Your task to perform on an android device: change notifications settings Image 0: 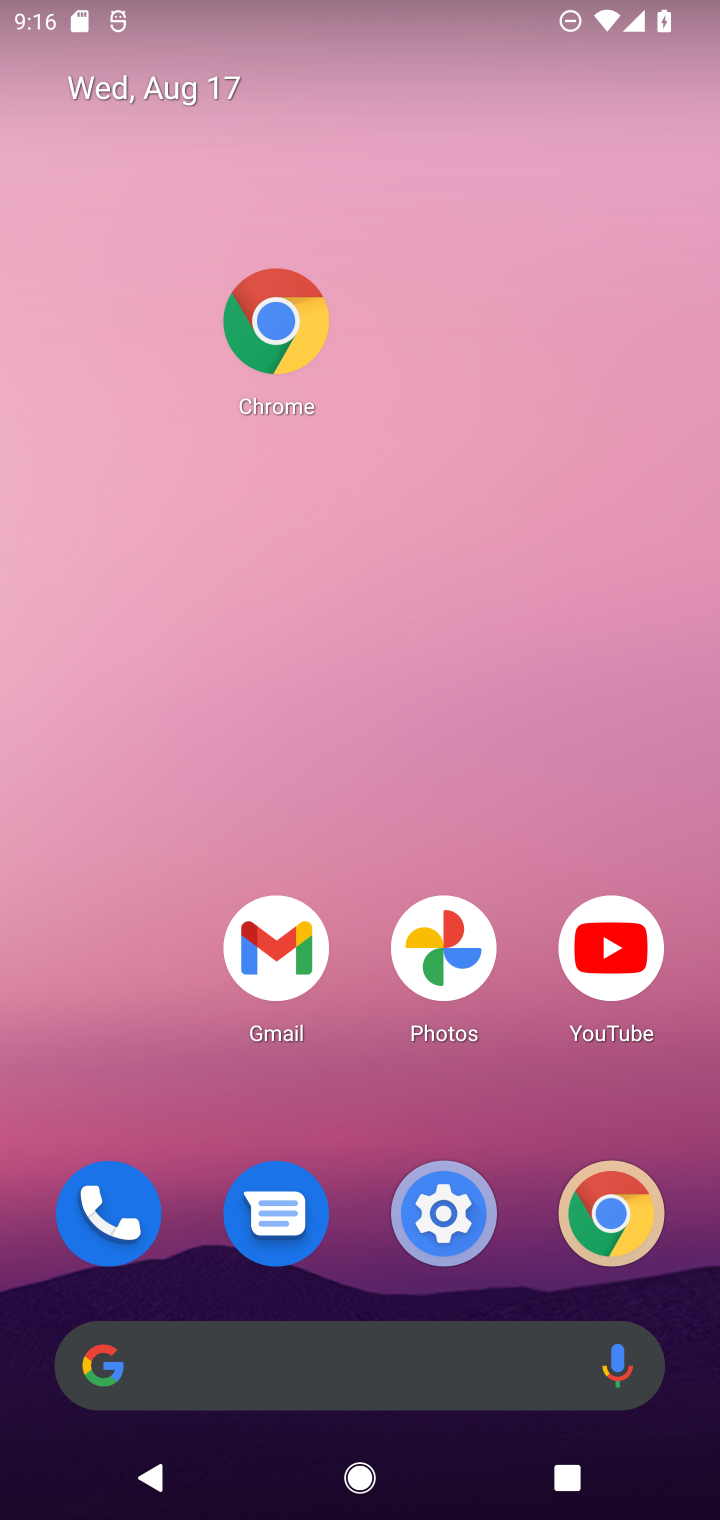
Step 0: click (431, 1247)
Your task to perform on an android device: change notifications settings Image 1: 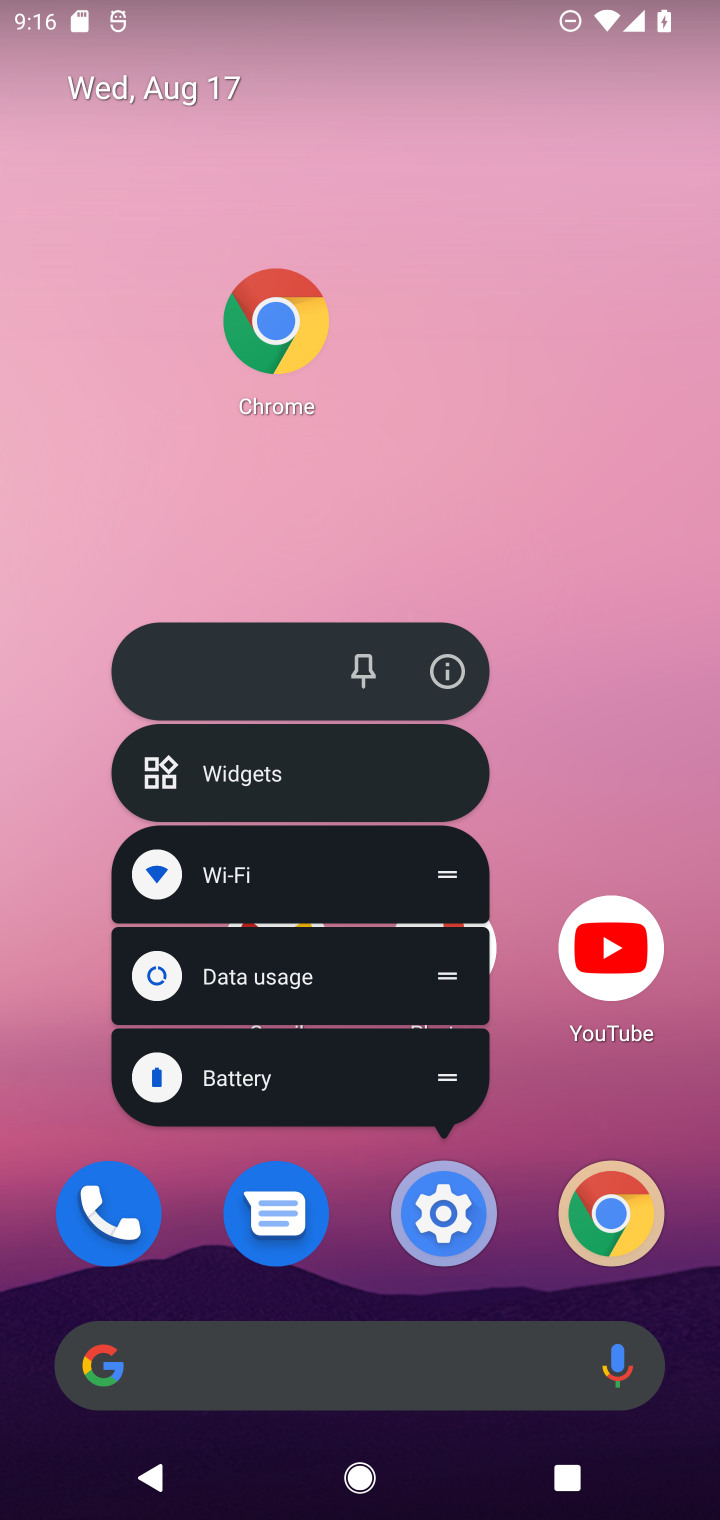
Step 1: click (431, 1247)
Your task to perform on an android device: change notifications settings Image 2: 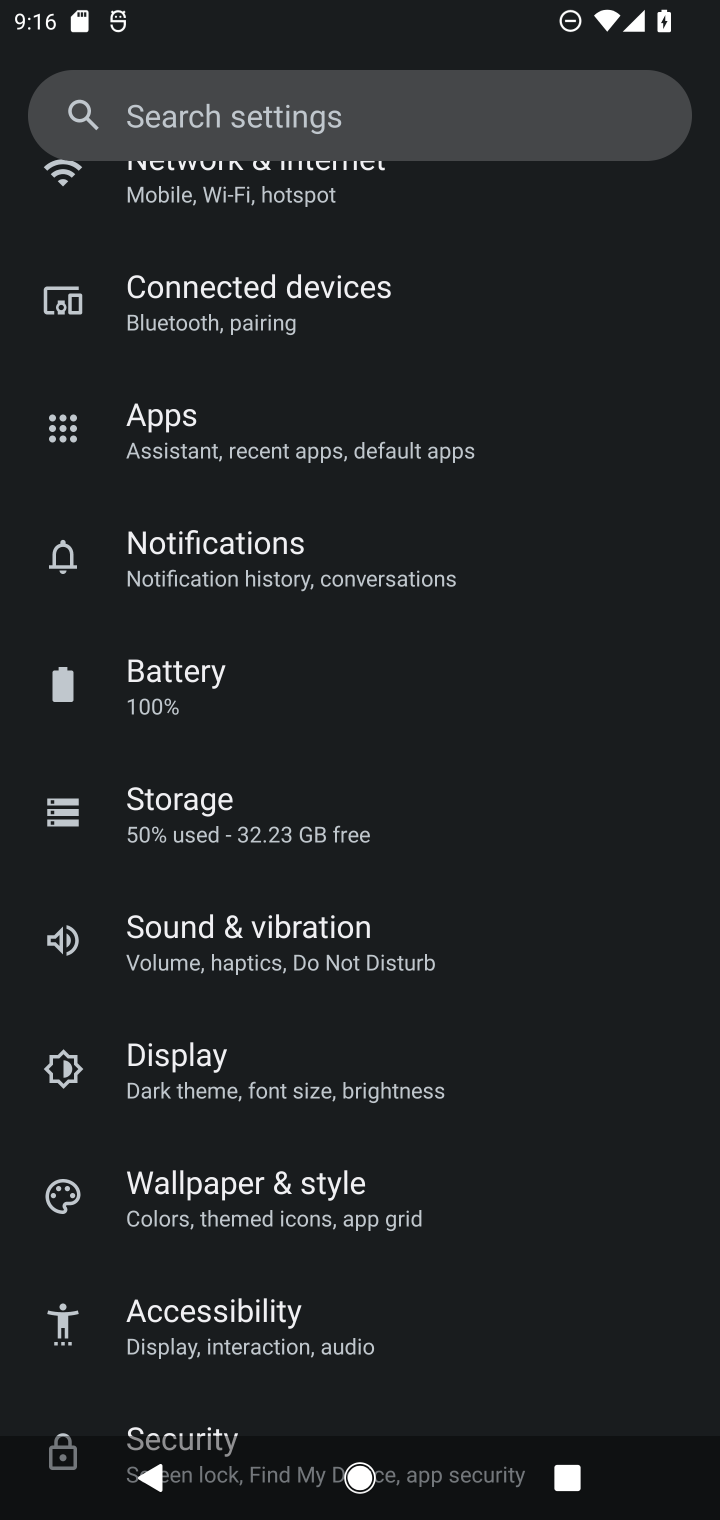
Step 2: click (252, 552)
Your task to perform on an android device: change notifications settings Image 3: 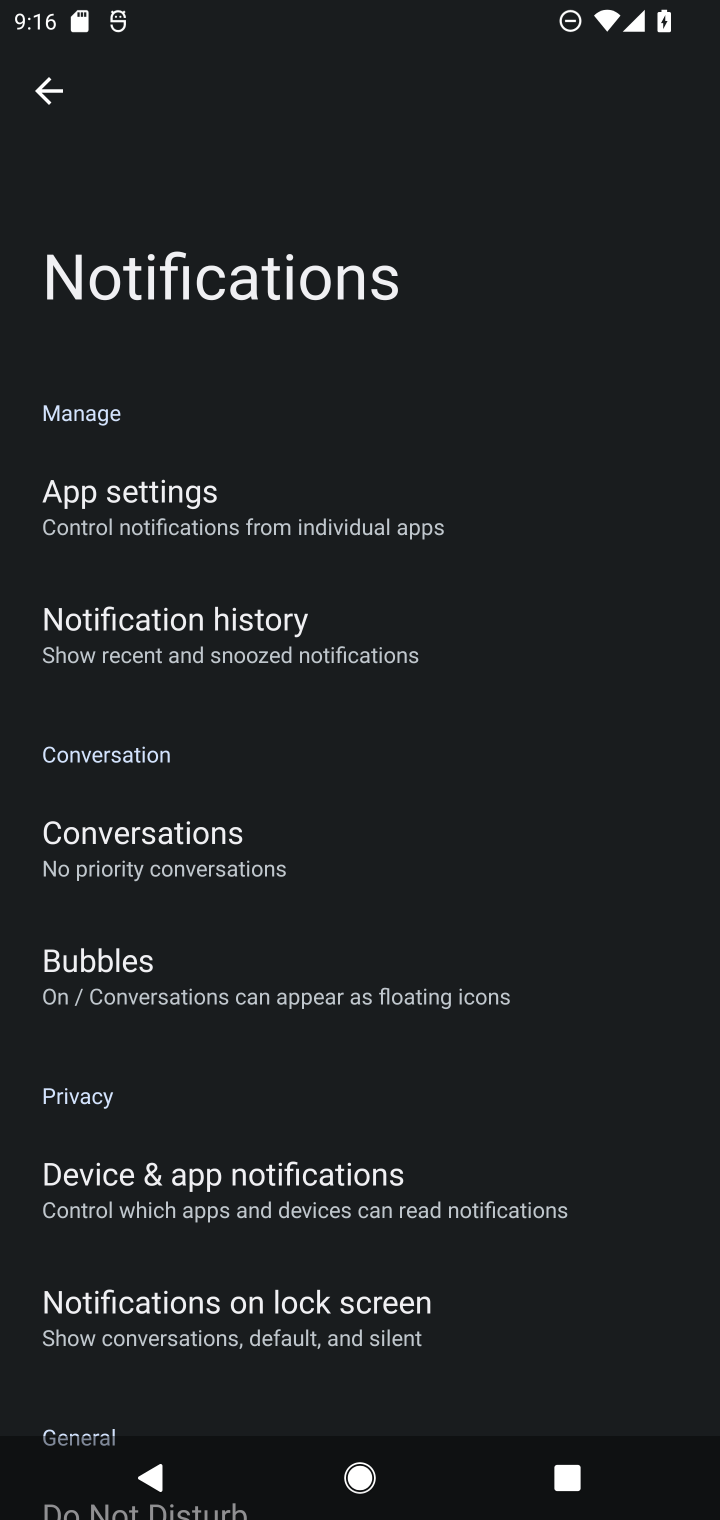
Step 3: task complete